Your task to perform on an android device: turn off priority inbox in the gmail app Image 0: 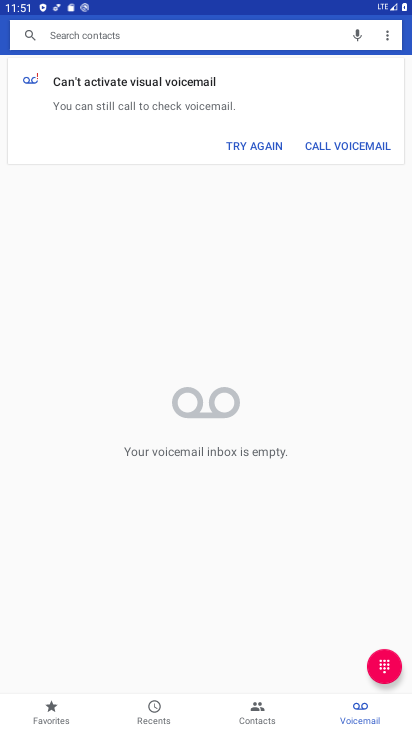
Step 0: press home button
Your task to perform on an android device: turn off priority inbox in the gmail app Image 1: 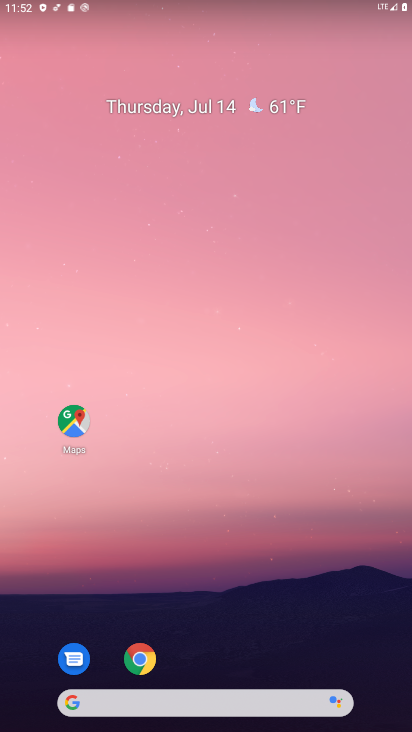
Step 1: drag from (203, 707) to (238, 180)
Your task to perform on an android device: turn off priority inbox in the gmail app Image 2: 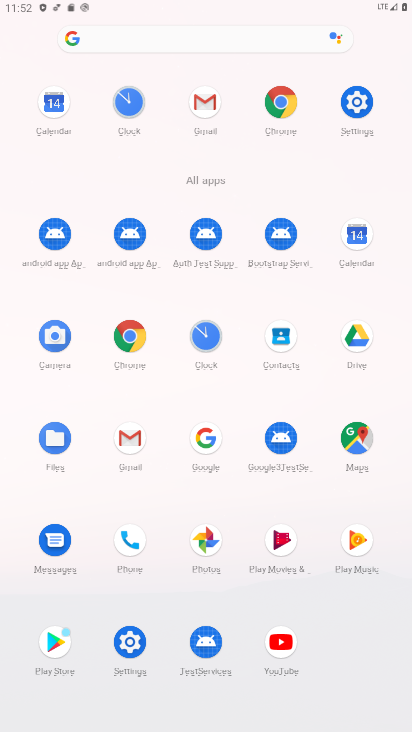
Step 2: click (204, 100)
Your task to perform on an android device: turn off priority inbox in the gmail app Image 3: 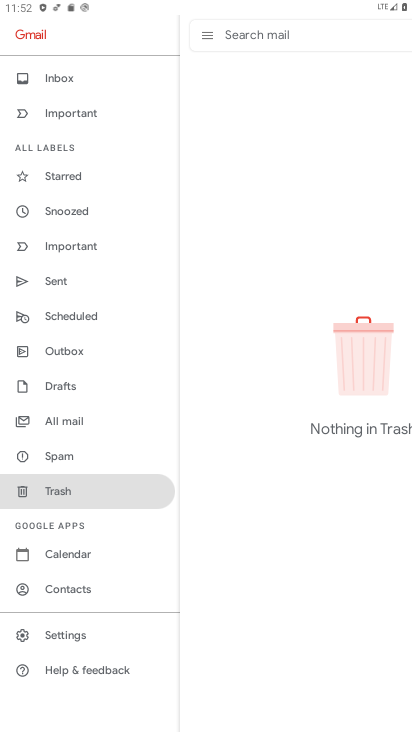
Step 3: click (83, 637)
Your task to perform on an android device: turn off priority inbox in the gmail app Image 4: 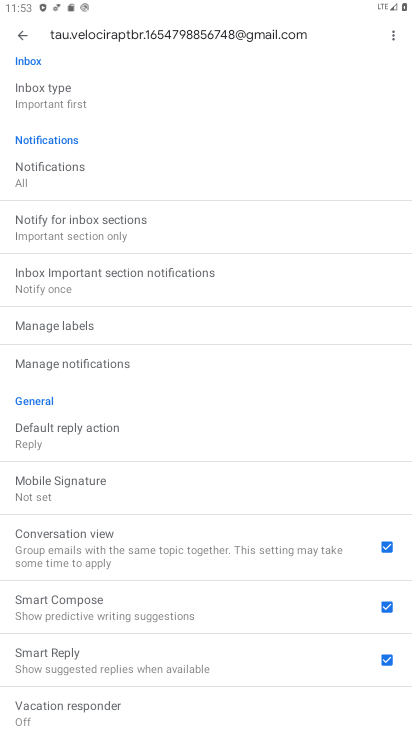
Step 4: click (49, 119)
Your task to perform on an android device: turn off priority inbox in the gmail app Image 5: 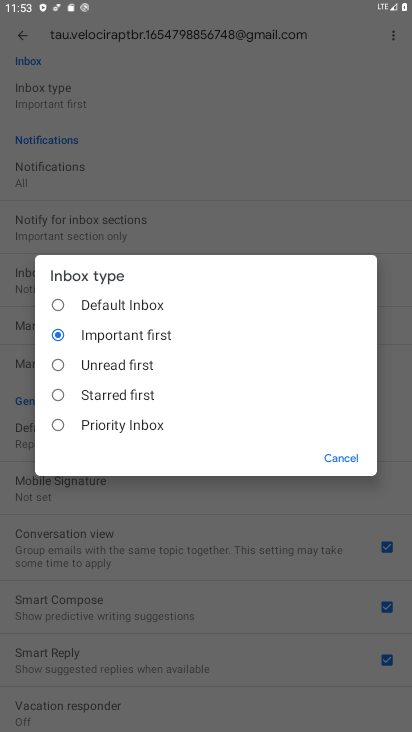
Step 5: click (61, 336)
Your task to perform on an android device: turn off priority inbox in the gmail app Image 6: 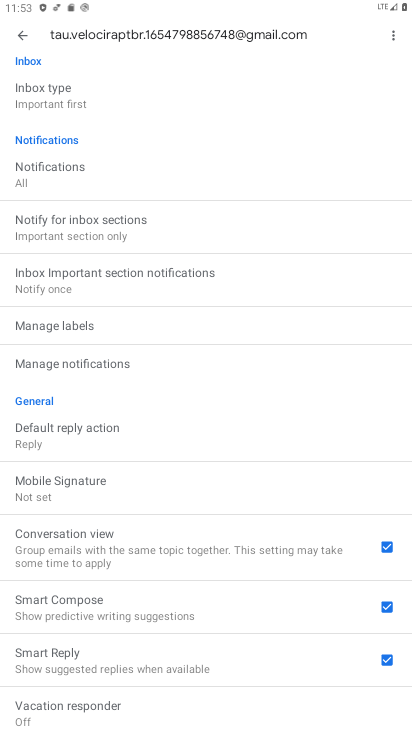
Step 6: task complete